Your task to perform on an android device: Show me the alarms in the clock app Image 0: 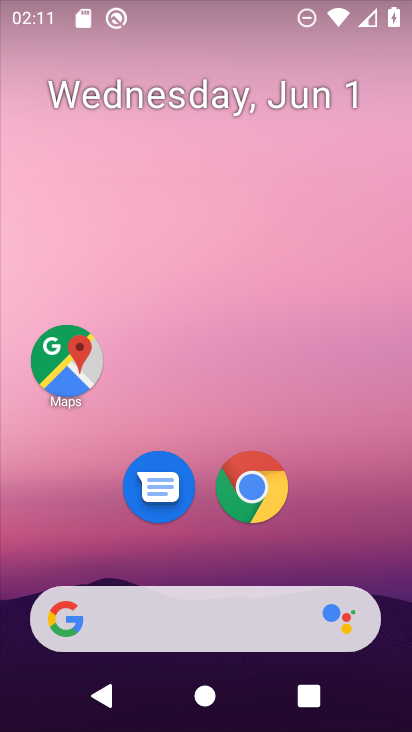
Step 0: drag from (226, 565) to (279, 160)
Your task to perform on an android device: Show me the alarms in the clock app Image 1: 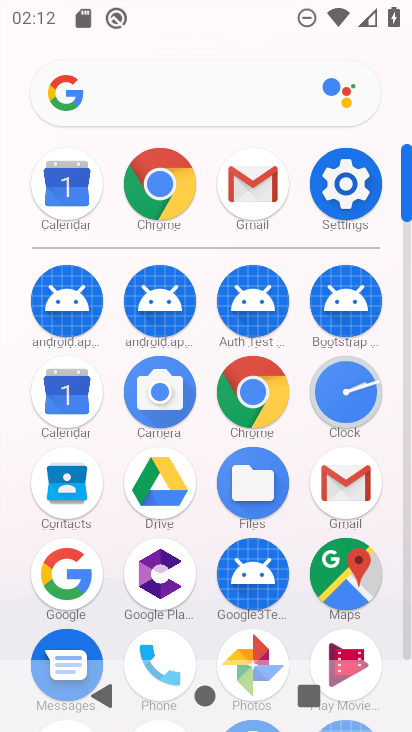
Step 1: click (337, 383)
Your task to perform on an android device: Show me the alarms in the clock app Image 2: 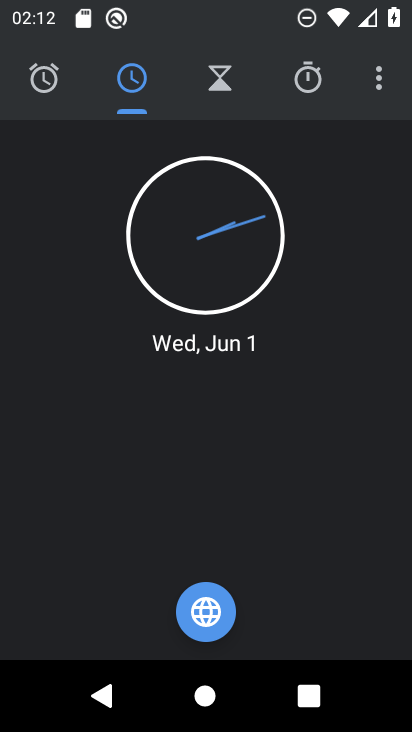
Step 2: click (384, 65)
Your task to perform on an android device: Show me the alarms in the clock app Image 3: 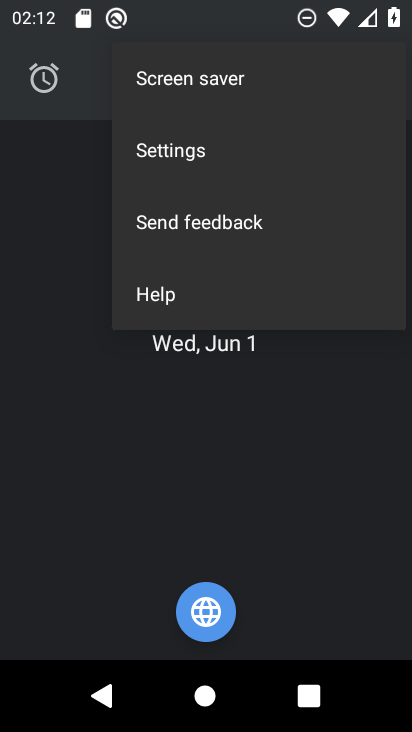
Step 3: click (189, 136)
Your task to perform on an android device: Show me the alarms in the clock app Image 4: 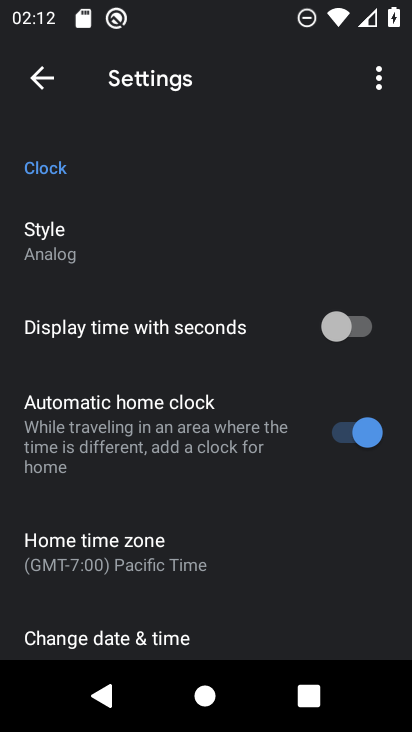
Step 4: click (54, 83)
Your task to perform on an android device: Show me the alarms in the clock app Image 5: 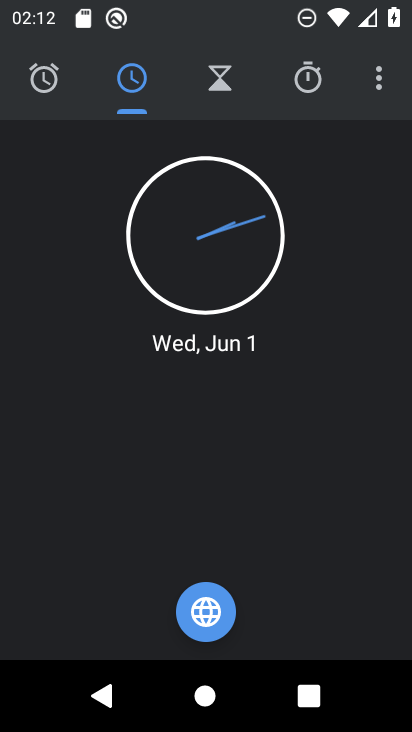
Step 5: click (40, 76)
Your task to perform on an android device: Show me the alarms in the clock app Image 6: 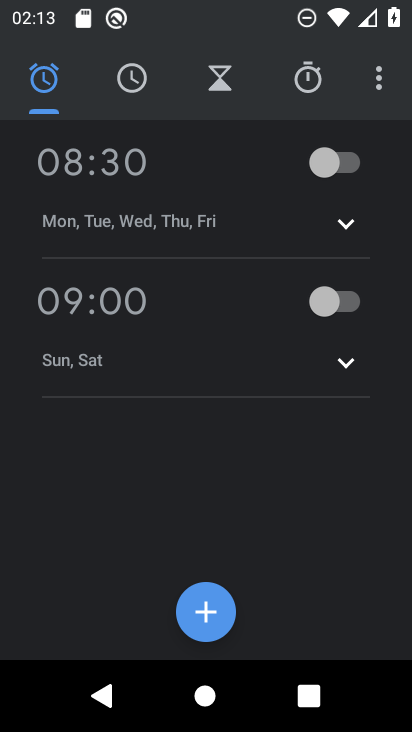
Step 6: task complete